Your task to perform on an android device: delete browsing data in the chrome app Image 0: 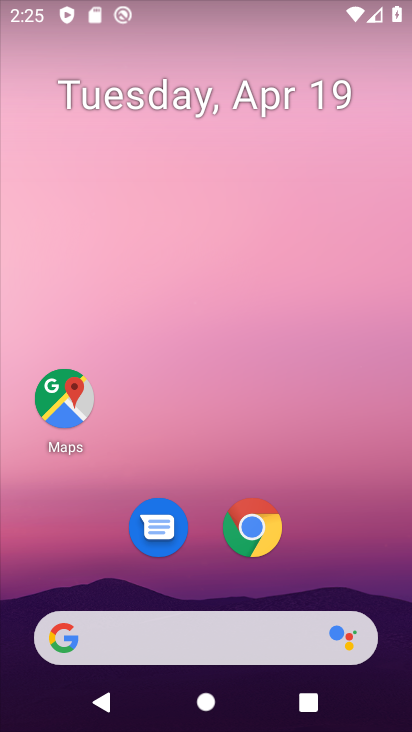
Step 0: click (256, 524)
Your task to perform on an android device: delete browsing data in the chrome app Image 1: 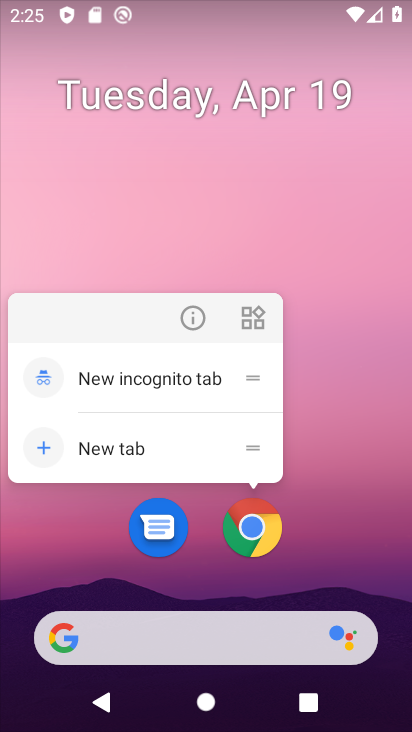
Step 1: click (253, 525)
Your task to perform on an android device: delete browsing data in the chrome app Image 2: 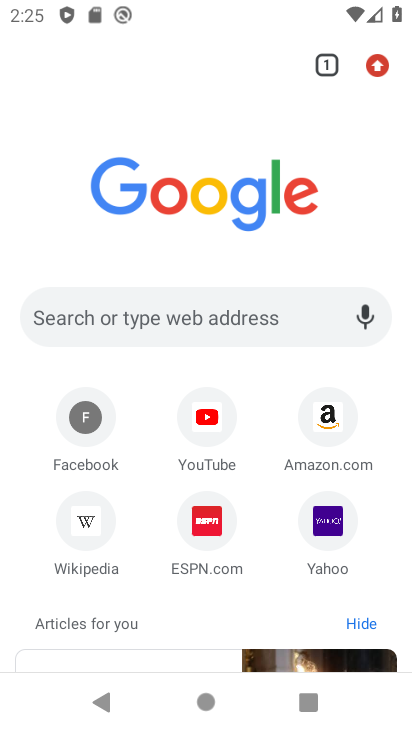
Step 2: click (380, 68)
Your task to perform on an android device: delete browsing data in the chrome app Image 3: 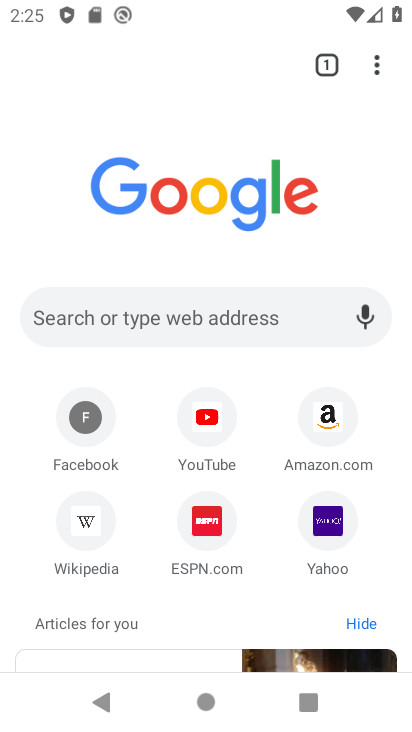
Step 3: click (372, 65)
Your task to perform on an android device: delete browsing data in the chrome app Image 4: 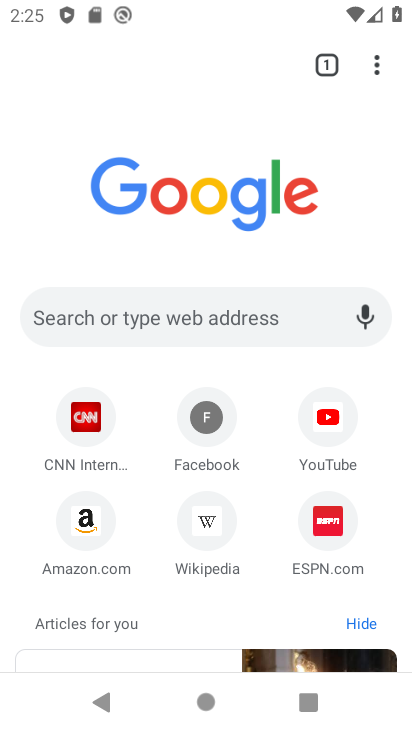
Step 4: click (374, 61)
Your task to perform on an android device: delete browsing data in the chrome app Image 5: 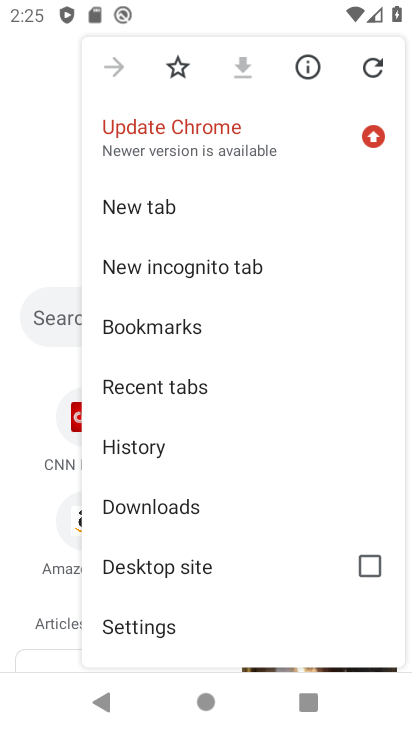
Step 5: click (136, 446)
Your task to perform on an android device: delete browsing data in the chrome app Image 6: 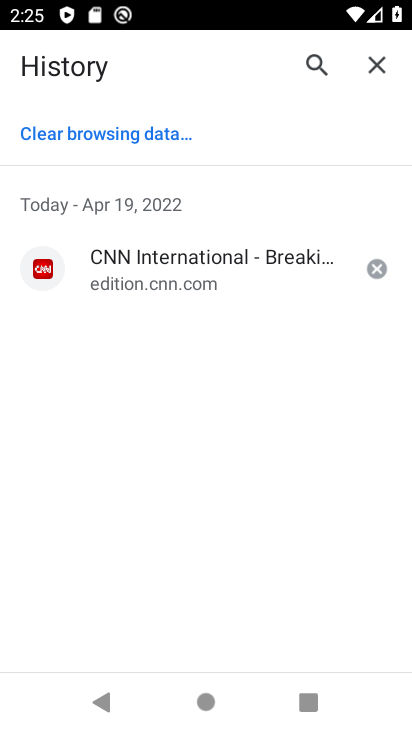
Step 6: click (93, 133)
Your task to perform on an android device: delete browsing data in the chrome app Image 7: 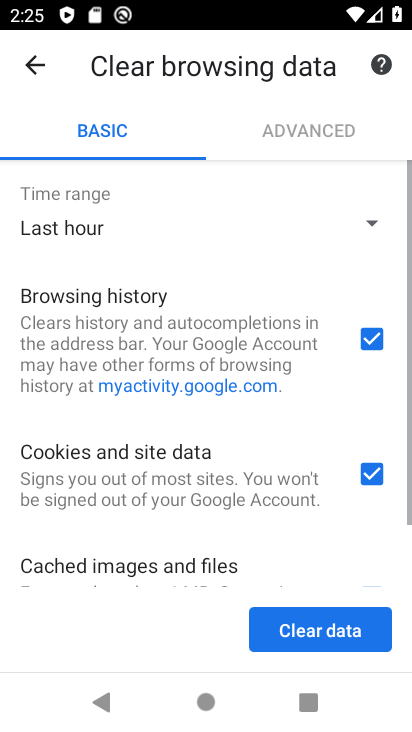
Step 7: click (287, 625)
Your task to perform on an android device: delete browsing data in the chrome app Image 8: 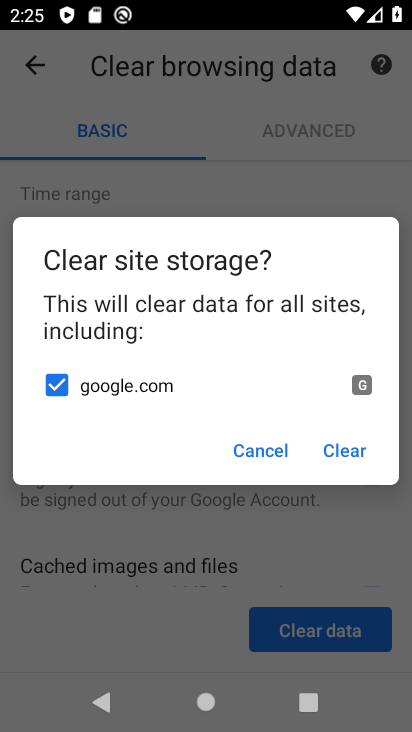
Step 8: click (353, 459)
Your task to perform on an android device: delete browsing data in the chrome app Image 9: 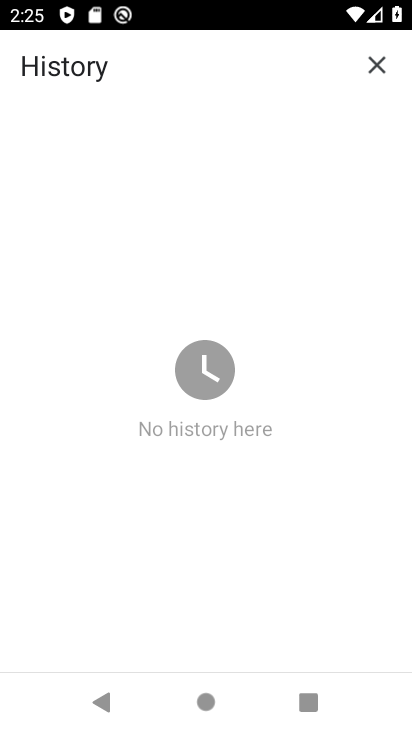
Step 9: task complete